Your task to perform on an android device: turn on translation in the chrome app Image 0: 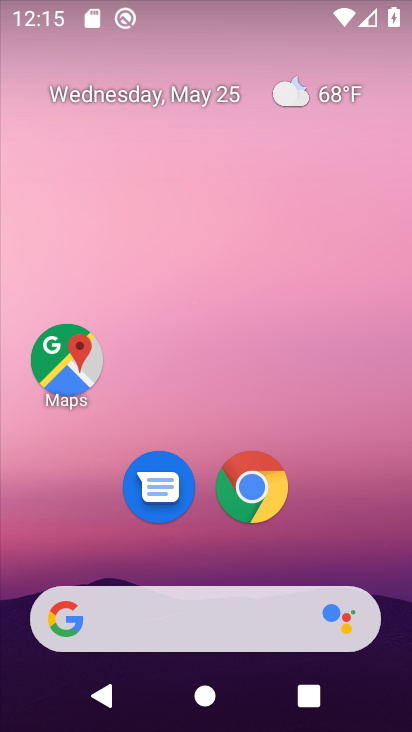
Step 0: click (258, 469)
Your task to perform on an android device: turn on translation in the chrome app Image 1: 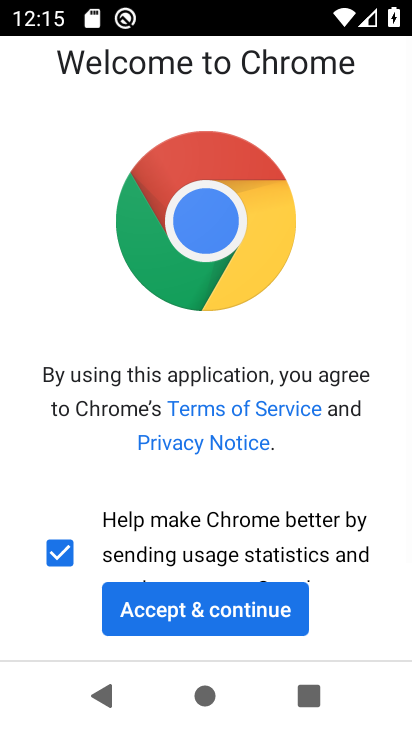
Step 1: click (205, 626)
Your task to perform on an android device: turn on translation in the chrome app Image 2: 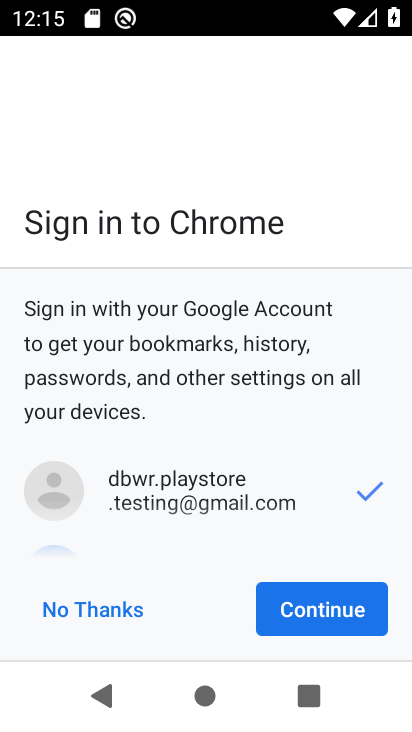
Step 2: click (297, 601)
Your task to perform on an android device: turn on translation in the chrome app Image 3: 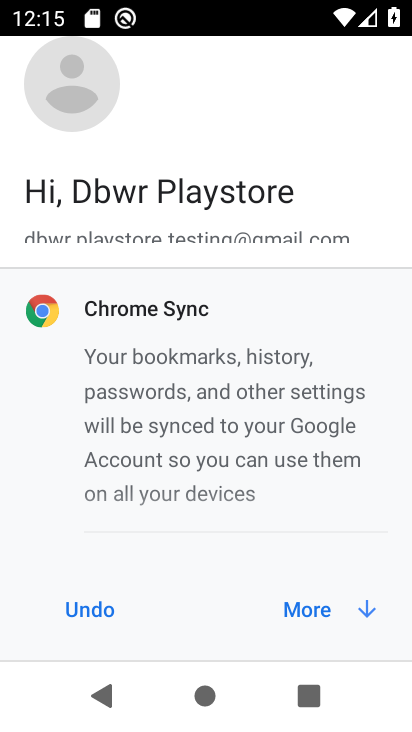
Step 3: click (304, 618)
Your task to perform on an android device: turn on translation in the chrome app Image 4: 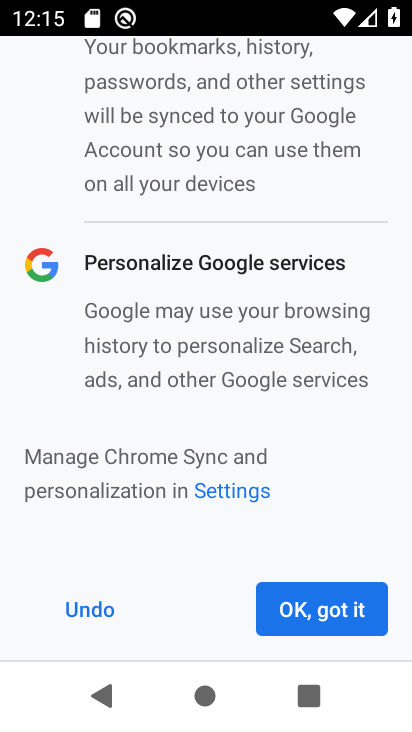
Step 4: click (307, 612)
Your task to perform on an android device: turn on translation in the chrome app Image 5: 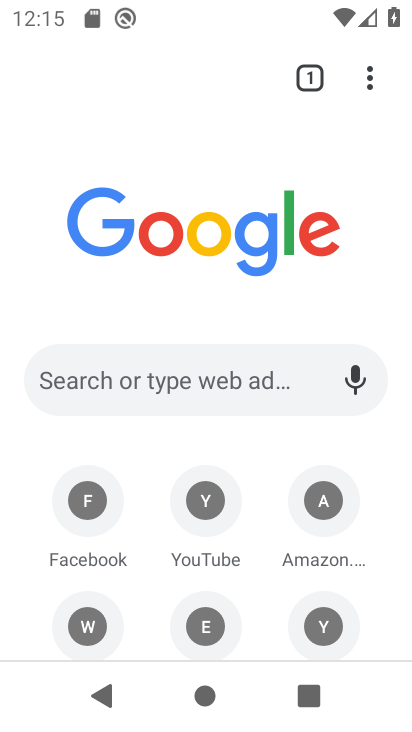
Step 5: drag from (371, 70) to (140, 583)
Your task to perform on an android device: turn on translation in the chrome app Image 6: 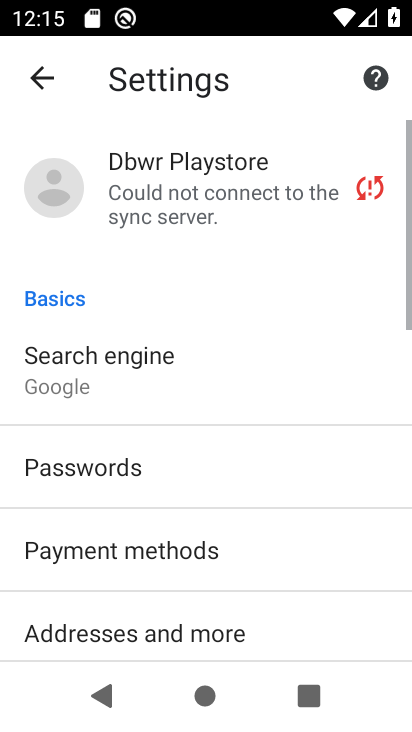
Step 6: drag from (124, 577) to (176, 138)
Your task to perform on an android device: turn on translation in the chrome app Image 7: 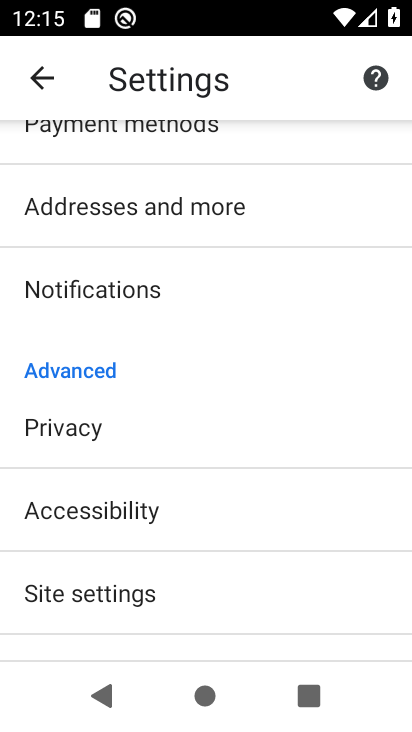
Step 7: drag from (125, 578) to (144, 344)
Your task to perform on an android device: turn on translation in the chrome app Image 8: 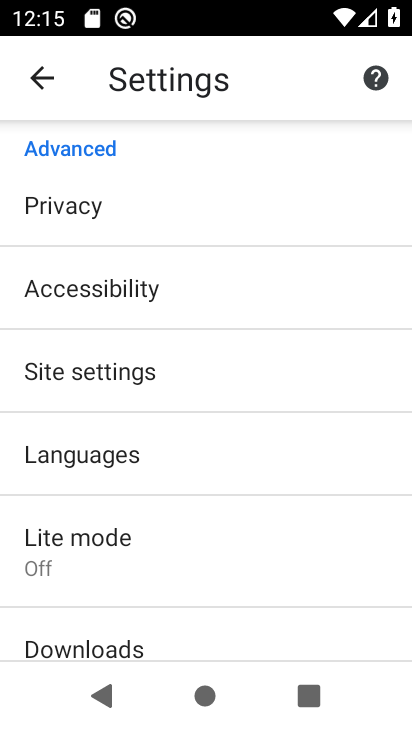
Step 8: click (114, 453)
Your task to perform on an android device: turn on translation in the chrome app Image 9: 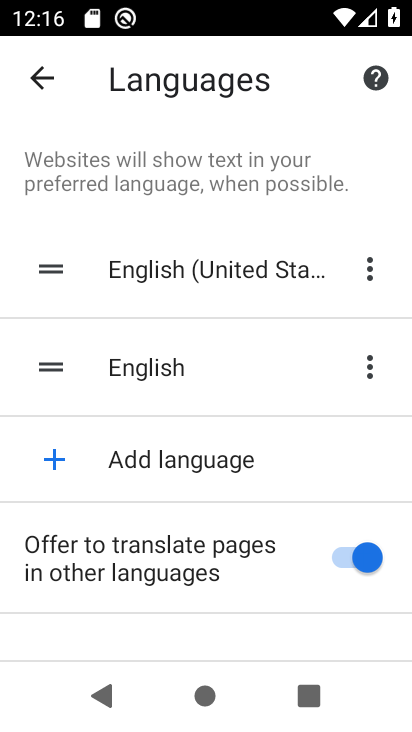
Step 9: task complete